Your task to perform on an android device: Is it going to rain this weekend? Image 0: 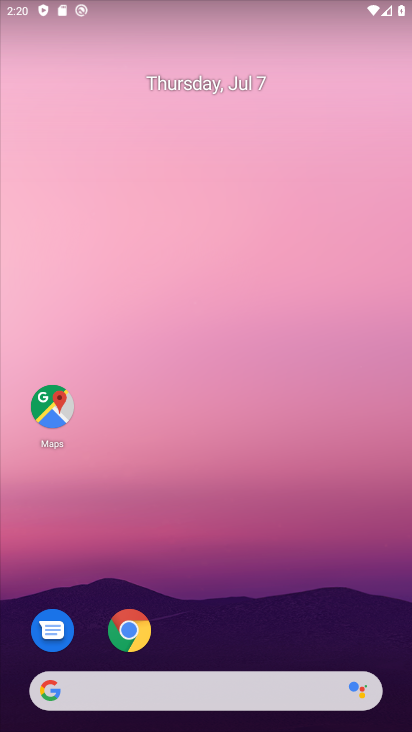
Step 0: drag from (240, 581) to (234, 355)
Your task to perform on an android device: Is it going to rain this weekend? Image 1: 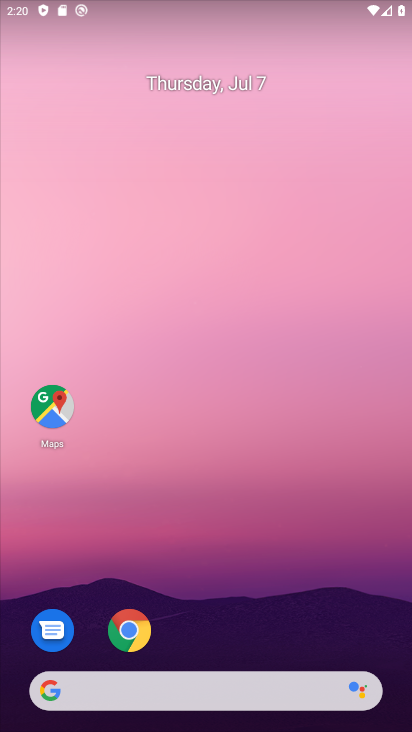
Step 1: drag from (314, 610) to (299, 247)
Your task to perform on an android device: Is it going to rain this weekend? Image 2: 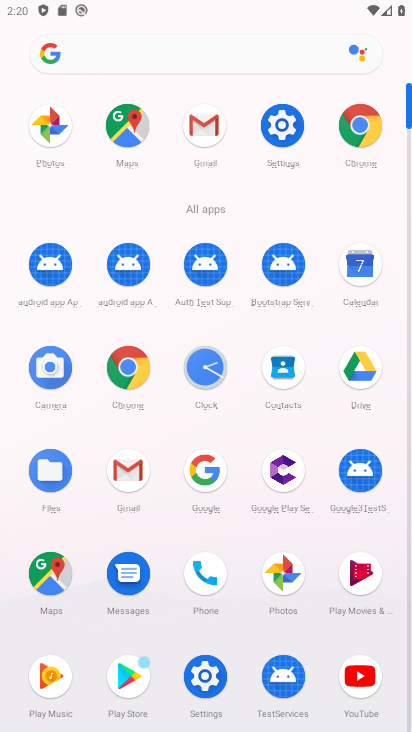
Step 2: click (210, 132)
Your task to perform on an android device: Is it going to rain this weekend? Image 3: 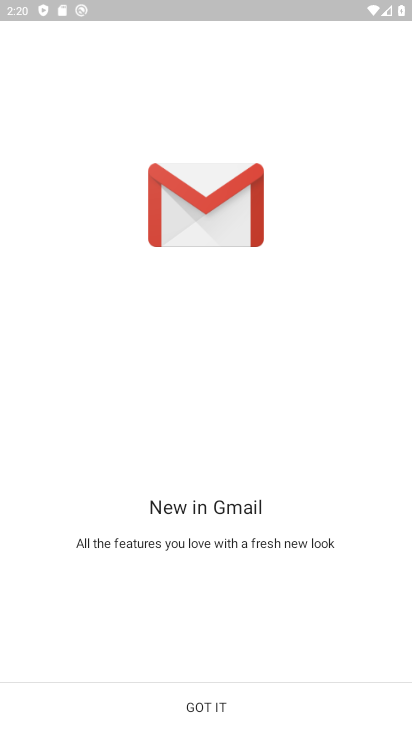
Step 3: press home button
Your task to perform on an android device: Is it going to rain this weekend? Image 4: 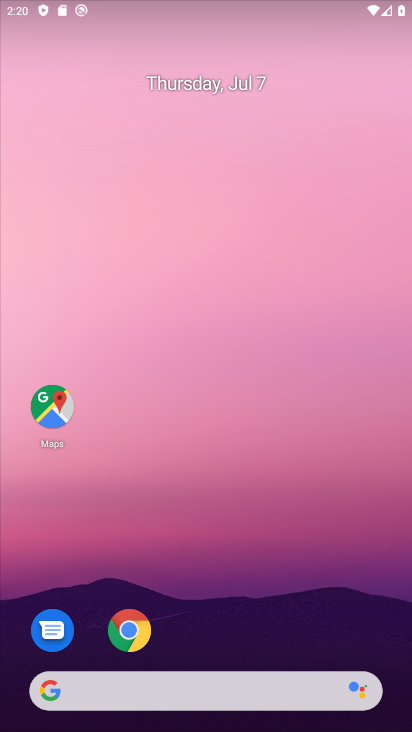
Step 4: drag from (191, 605) to (197, 268)
Your task to perform on an android device: Is it going to rain this weekend? Image 5: 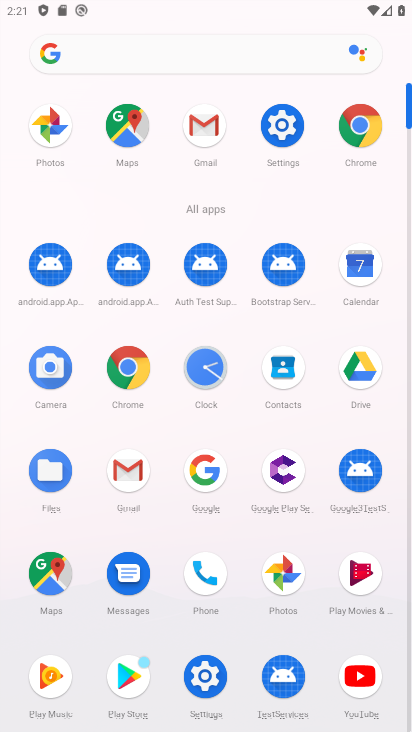
Step 5: click (138, 355)
Your task to perform on an android device: Is it going to rain this weekend? Image 6: 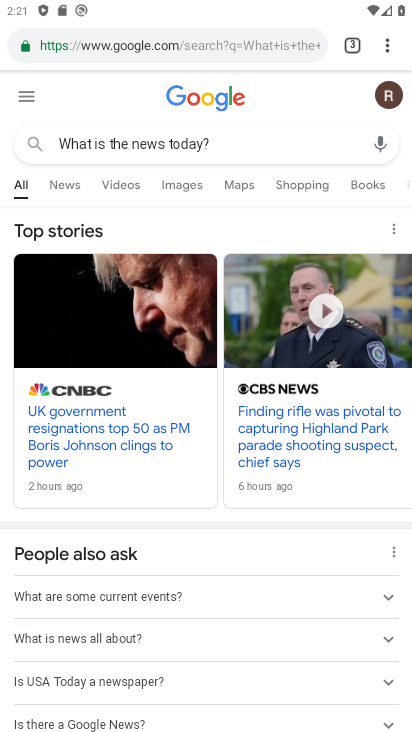
Step 6: click (384, 49)
Your task to perform on an android device: Is it going to rain this weekend? Image 7: 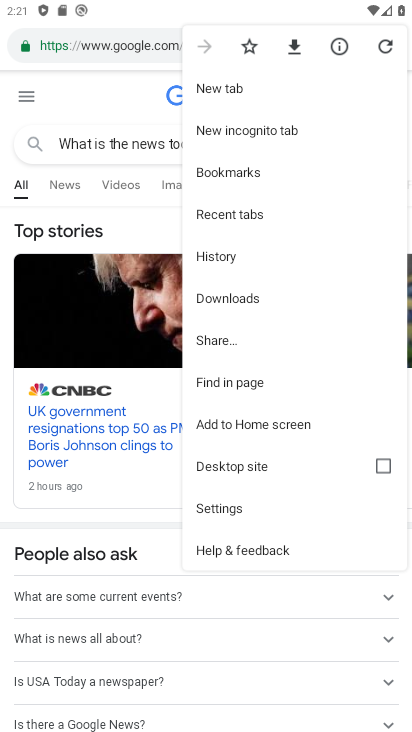
Step 7: click (274, 86)
Your task to perform on an android device: Is it going to rain this weekend? Image 8: 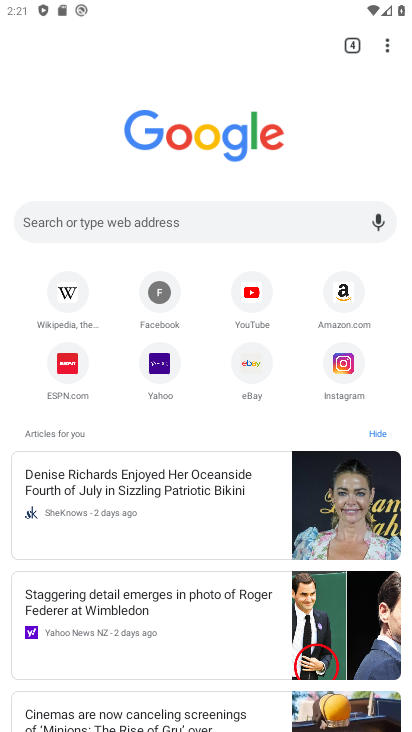
Step 8: click (153, 213)
Your task to perform on an android device: Is it going to rain this weekend? Image 9: 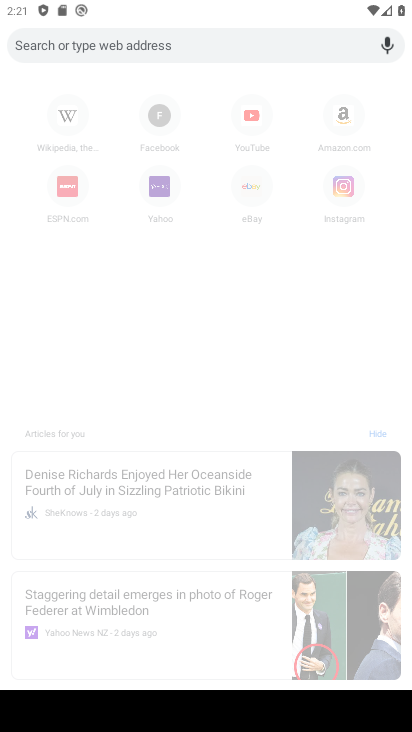
Step 9: type "Is it going to rain this weekend "
Your task to perform on an android device: Is it going to rain this weekend? Image 10: 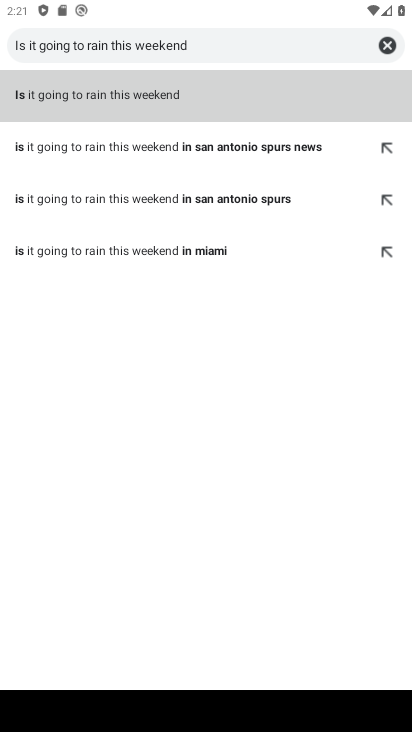
Step 10: click (119, 94)
Your task to perform on an android device: Is it going to rain this weekend? Image 11: 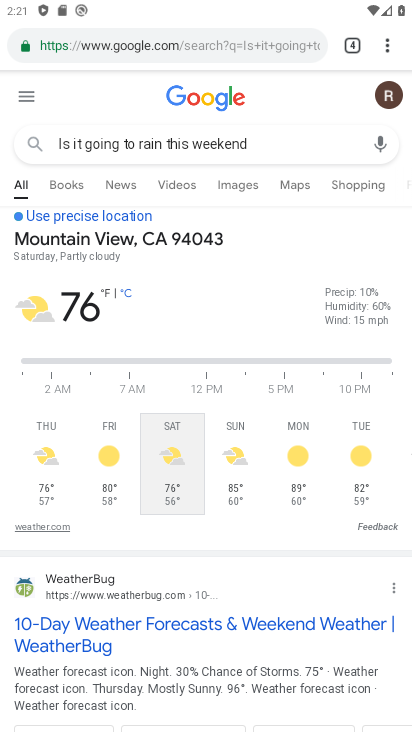
Step 11: task complete